Your task to perform on an android device: change your default location settings in chrome Image 0: 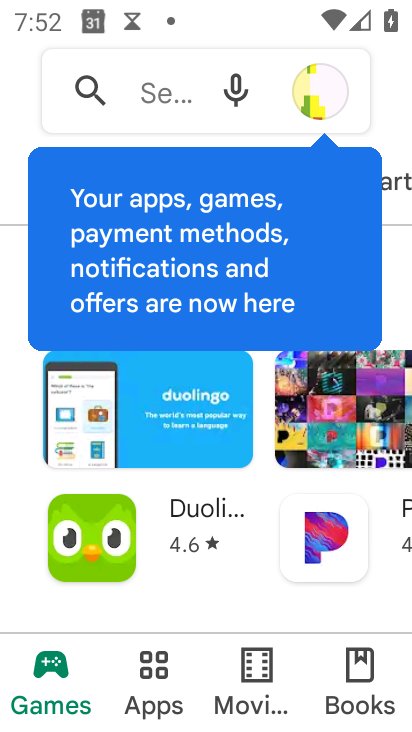
Step 0: press home button
Your task to perform on an android device: change your default location settings in chrome Image 1: 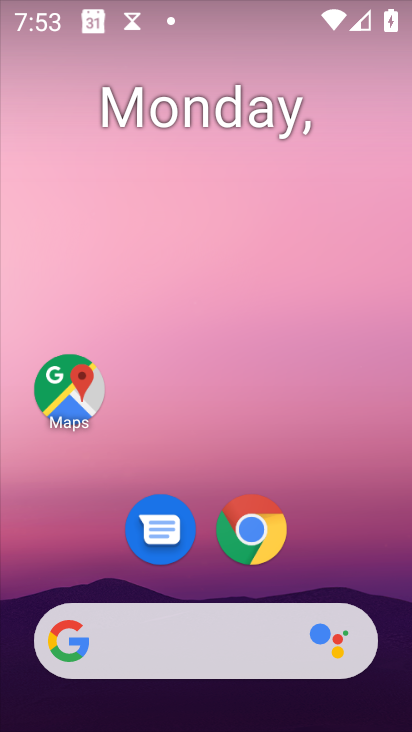
Step 1: click (252, 524)
Your task to perform on an android device: change your default location settings in chrome Image 2: 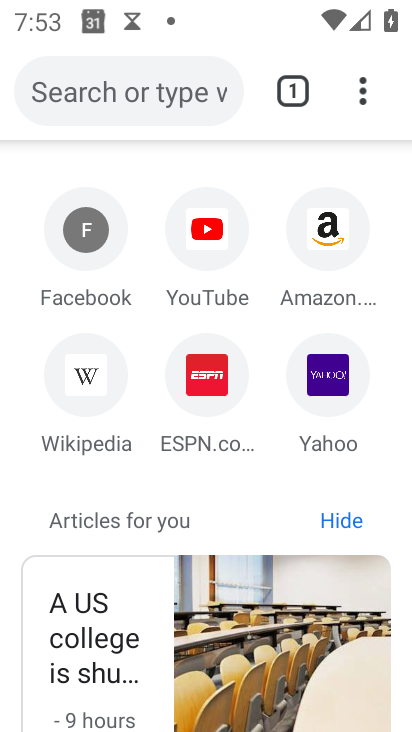
Step 2: click (367, 92)
Your task to perform on an android device: change your default location settings in chrome Image 3: 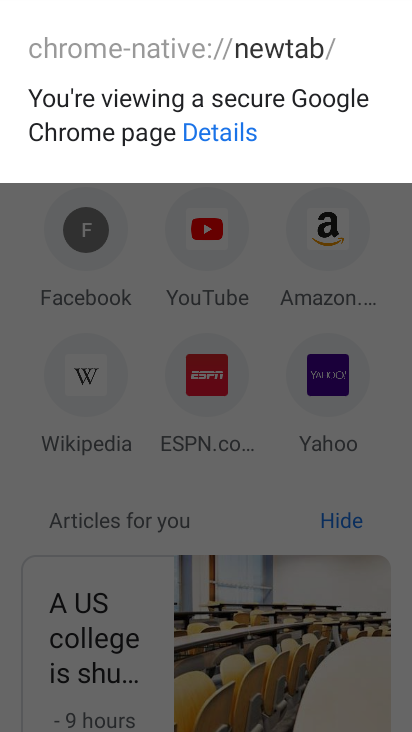
Step 3: click (388, 239)
Your task to perform on an android device: change your default location settings in chrome Image 4: 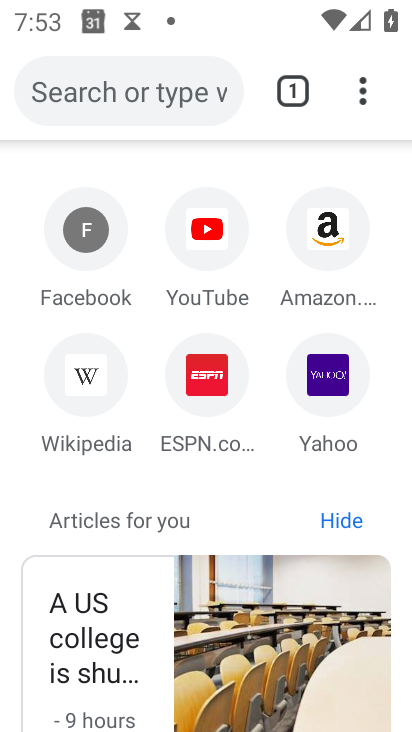
Step 4: click (361, 86)
Your task to perform on an android device: change your default location settings in chrome Image 5: 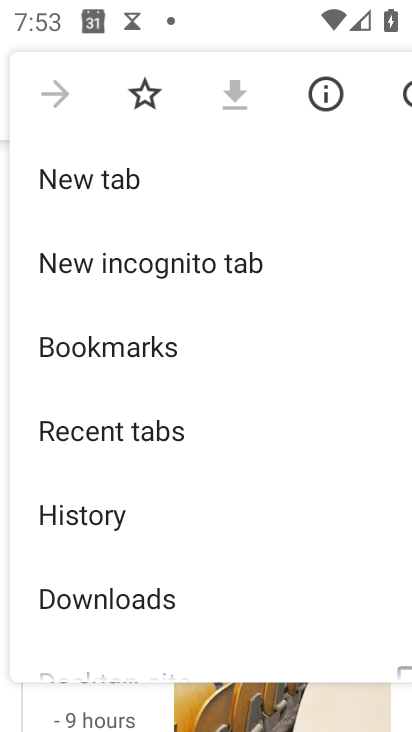
Step 5: drag from (69, 601) to (187, 179)
Your task to perform on an android device: change your default location settings in chrome Image 6: 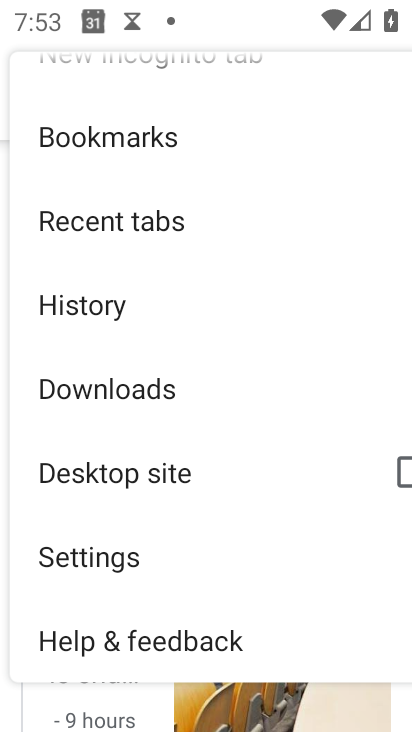
Step 6: click (70, 539)
Your task to perform on an android device: change your default location settings in chrome Image 7: 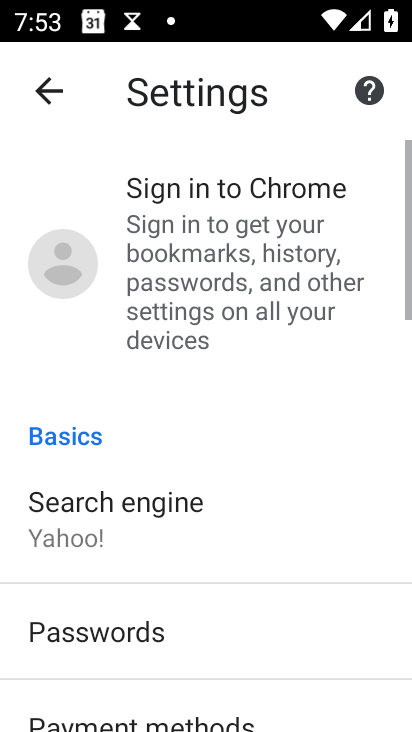
Step 7: drag from (134, 619) to (232, 208)
Your task to perform on an android device: change your default location settings in chrome Image 8: 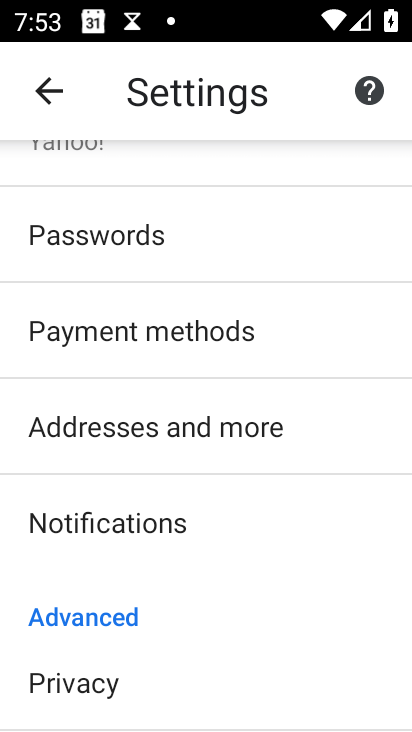
Step 8: drag from (43, 697) to (203, 265)
Your task to perform on an android device: change your default location settings in chrome Image 9: 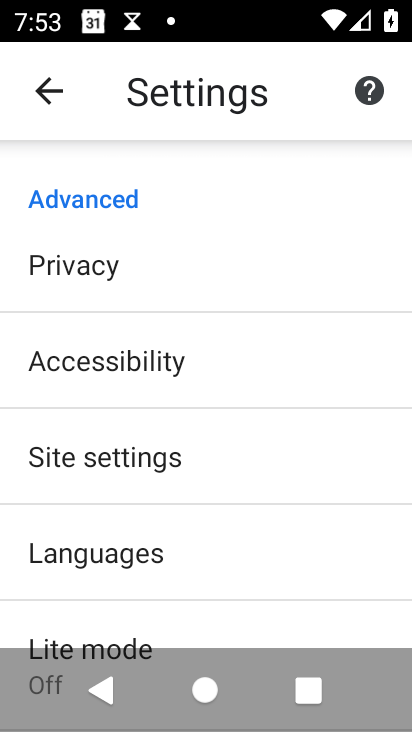
Step 9: click (101, 460)
Your task to perform on an android device: change your default location settings in chrome Image 10: 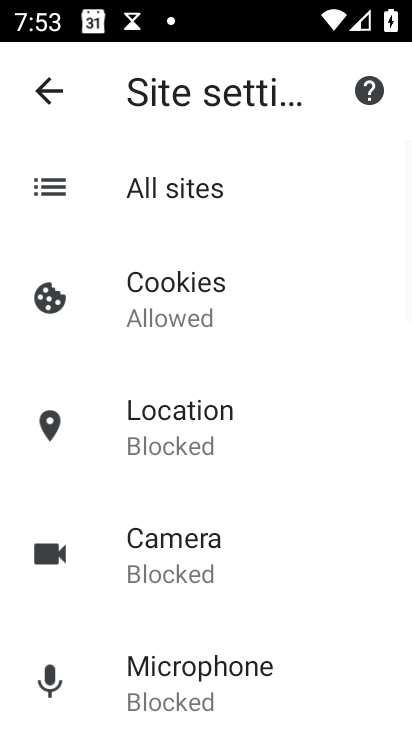
Step 10: click (147, 433)
Your task to perform on an android device: change your default location settings in chrome Image 11: 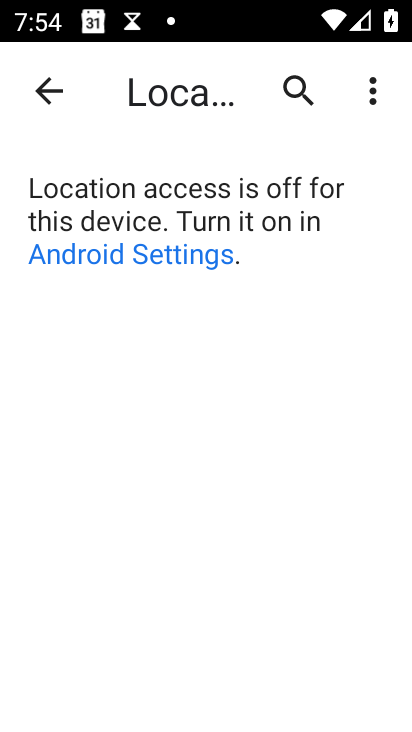
Step 11: task complete